Your task to perform on an android device: Show me productivity apps on the Play Store Image 0: 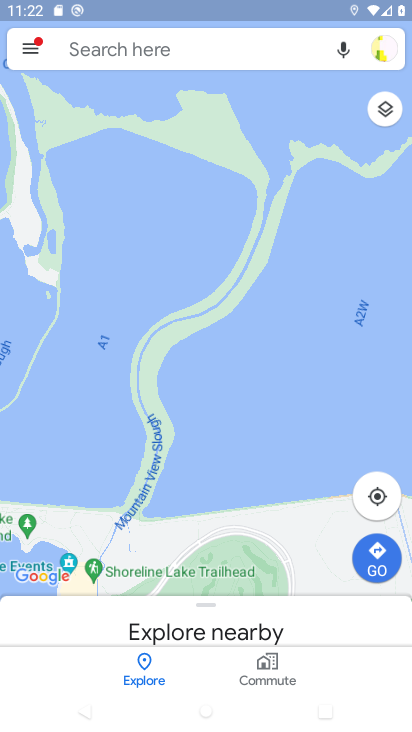
Step 0: press home button
Your task to perform on an android device: Show me productivity apps on the Play Store Image 1: 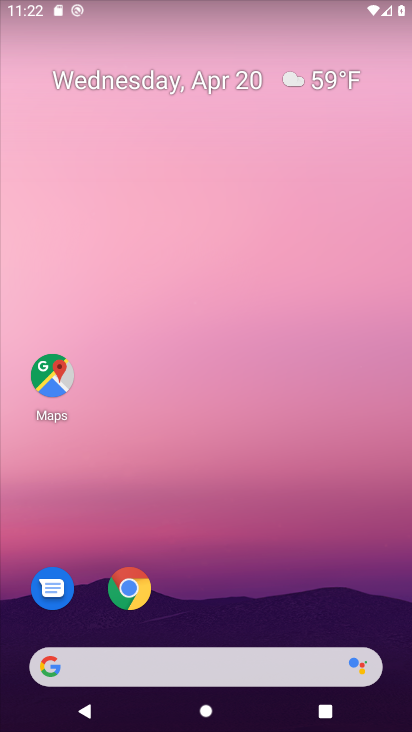
Step 1: drag from (366, 612) to (293, 178)
Your task to perform on an android device: Show me productivity apps on the Play Store Image 2: 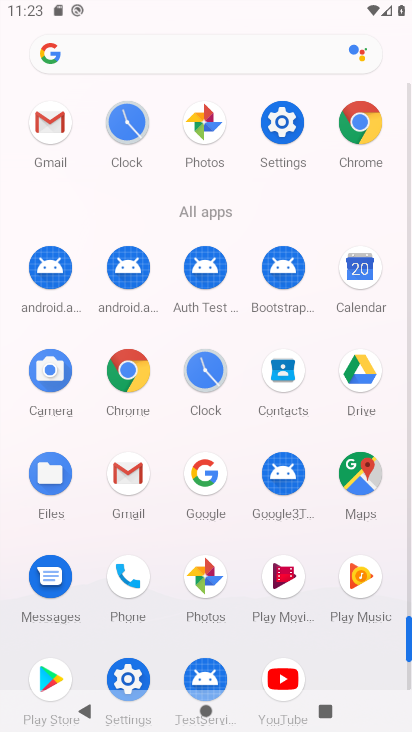
Step 2: click (46, 679)
Your task to perform on an android device: Show me productivity apps on the Play Store Image 3: 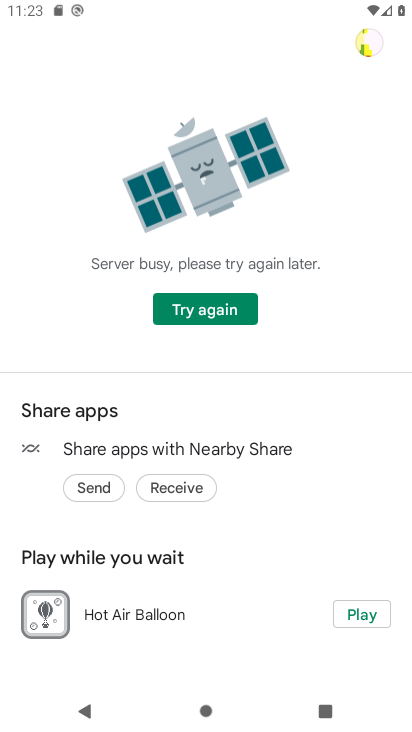
Step 3: click (203, 303)
Your task to perform on an android device: Show me productivity apps on the Play Store Image 4: 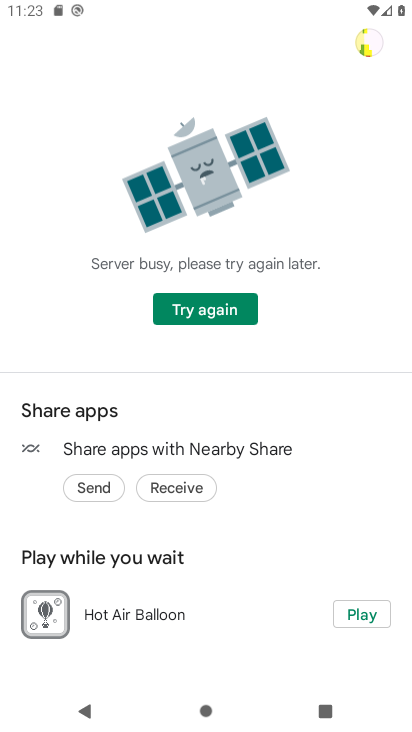
Step 4: task complete